Your task to perform on an android device: open app "Nova Launcher" (install if not already installed) and enter user name: "haggard@gmail.com" and password: "sadder" Image 0: 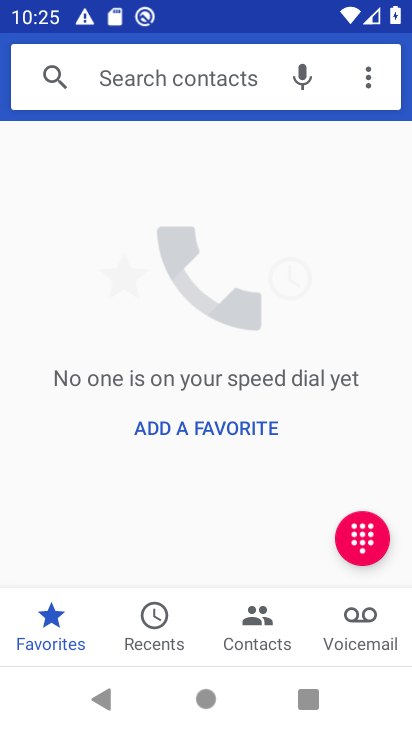
Step 0: press home button
Your task to perform on an android device: open app "Nova Launcher" (install if not already installed) and enter user name: "haggard@gmail.com" and password: "sadder" Image 1: 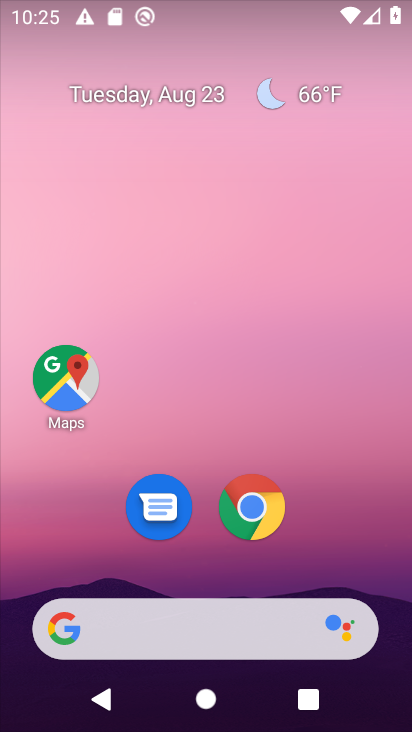
Step 1: drag from (392, 598) to (371, 107)
Your task to perform on an android device: open app "Nova Launcher" (install if not already installed) and enter user name: "haggard@gmail.com" and password: "sadder" Image 2: 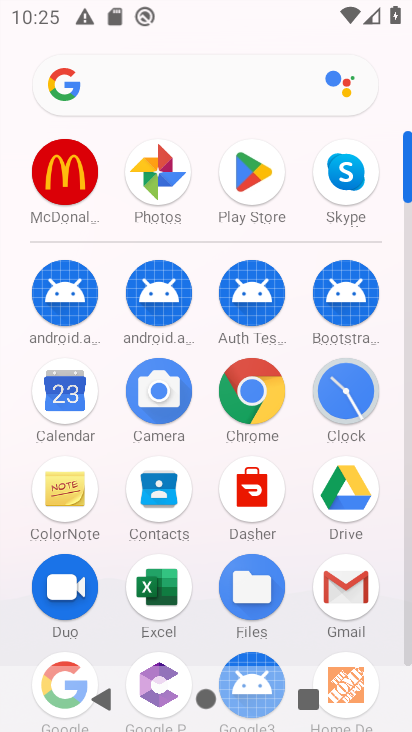
Step 2: click (404, 651)
Your task to perform on an android device: open app "Nova Launcher" (install if not already installed) and enter user name: "haggard@gmail.com" and password: "sadder" Image 3: 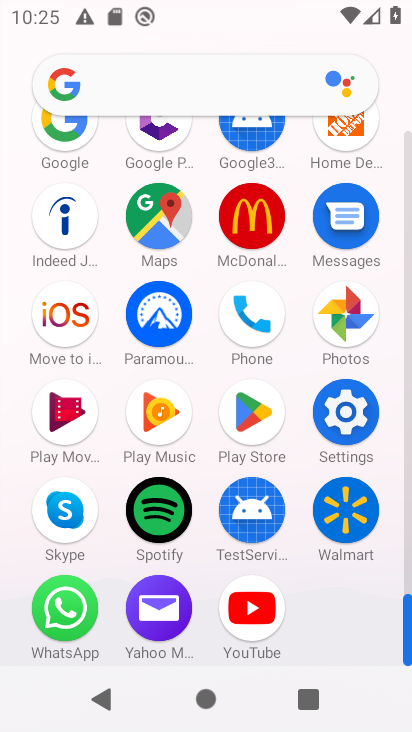
Step 3: click (253, 412)
Your task to perform on an android device: open app "Nova Launcher" (install if not already installed) and enter user name: "haggard@gmail.com" and password: "sadder" Image 4: 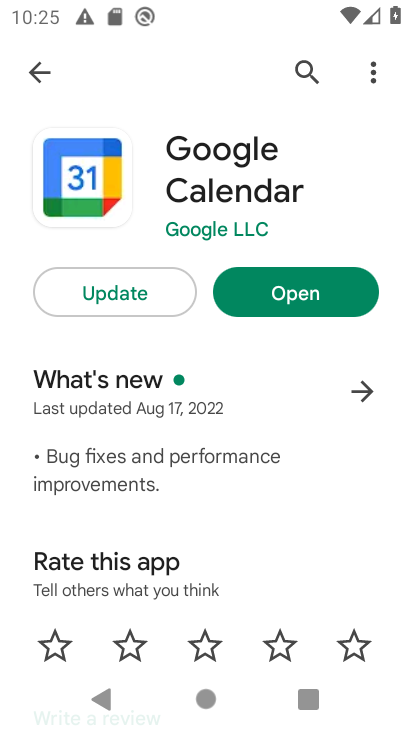
Step 4: click (307, 69)
Your task to perform on an android device: open app "Nova Launcher" (install if not already installed) and enter user name: "haggard@gmail.com" and password: "sadder" Image 5: 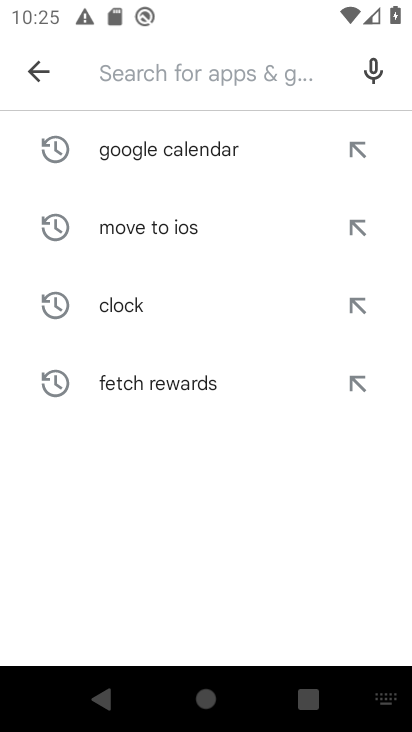
Step 5: type "Nova Launcher"
Your task to perform on an android device: open app "Nova Launcher" (install if not already installed) and enter user name: "haggard@gmail.com" and password: "sadder" Image 6: 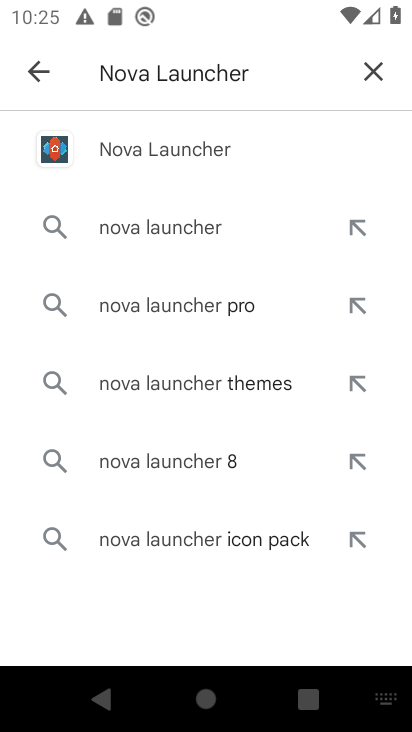
Step 6: click (140, 139)
Your task to perform on an android device: open app "Nova Launcher" (install if not already installed) and enter user name: "haggard@gmail.com" and password: "sadder" Image 7: 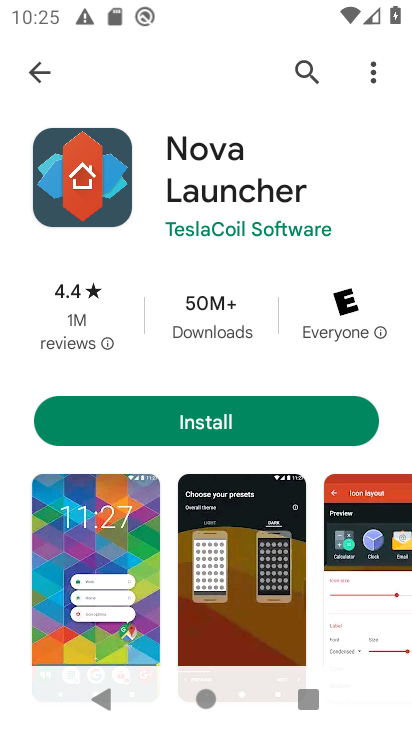
Step 7: click (213, 427)
Your task to perform on an android device: open app "Nova Launcher" (install if not already installed) and enter user name: "haggard@gmail.com" and password: "sadder" Image 8: 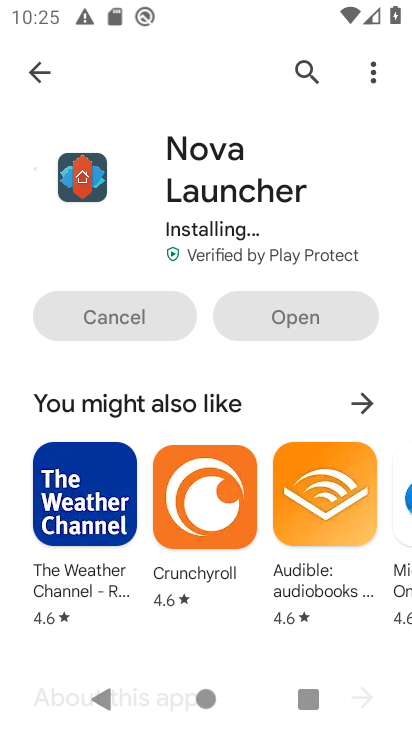
Step 8: click (203, 330)
Your task to perform on an android device: open app "Nova Launcher" (install if not already installed) and enter user name: "haggard@gmail.com" and password: "sadder" Image 9: 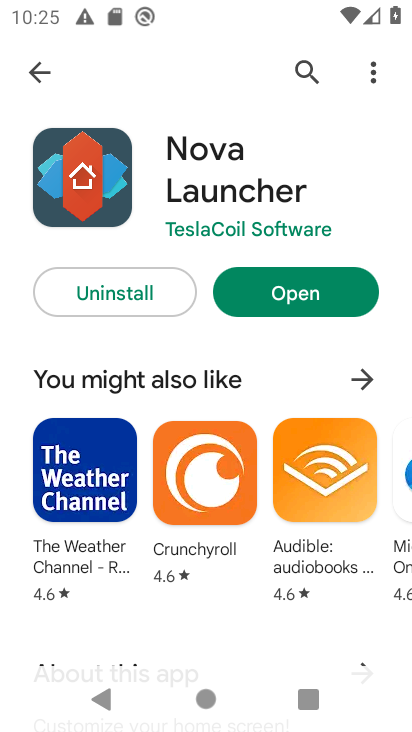
Step 9: click (296, 291)
Your task to perform on an android device: open app "Nova Launcher" (install if not already installed) and enter user name: "haggard@gmail.com" and password: "sadder" Image 10: 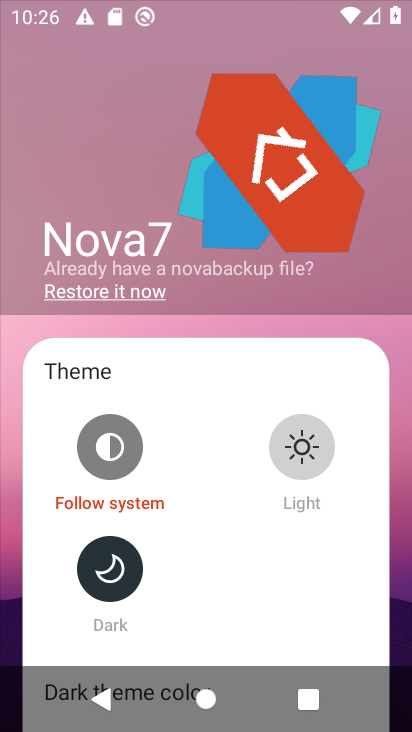
Step 10: task complete